Your task to perform on an android device: turn off location history Image 0: 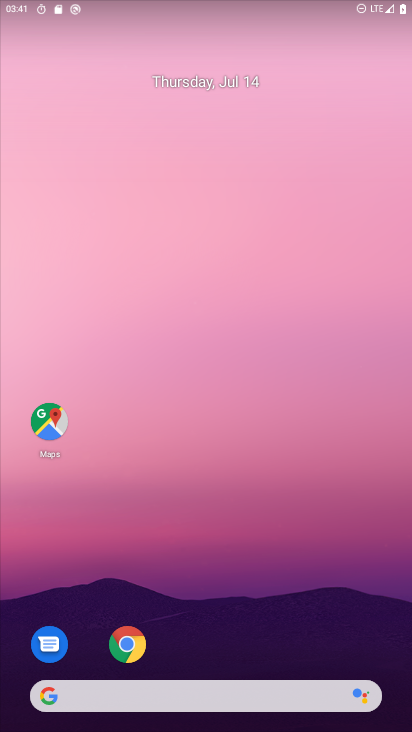
Step 0: drag from (254, 619) to (0, 75)
Your task to perform on an android device: turn off location history Image 1: 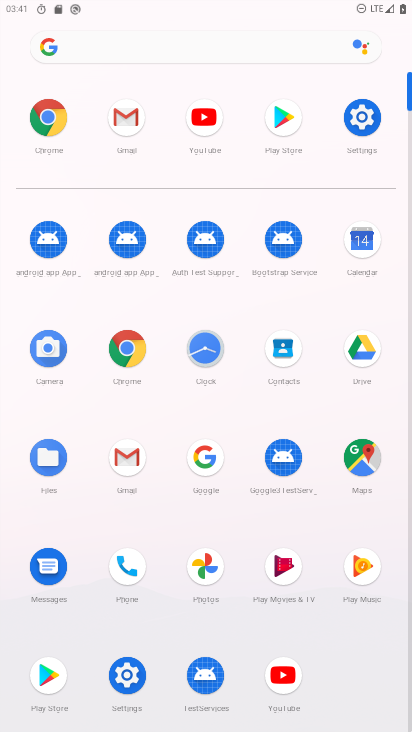
Step 1: click (356, 114)
Your task to perform on an android device: turn off location history Image 2: 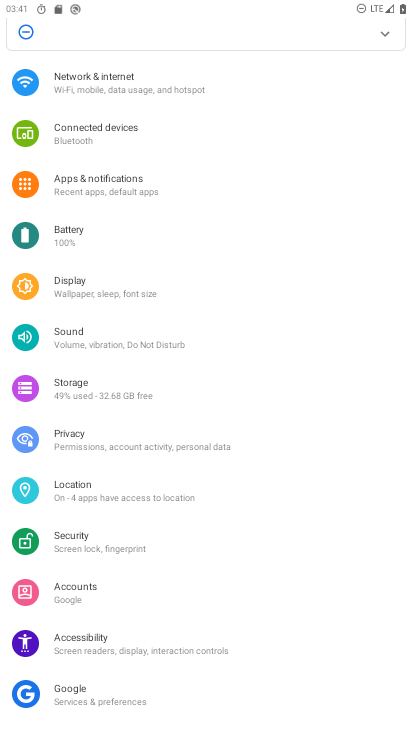
Step 2: click (112, 498)
Your task to perform on an android device: turn off location history Image 3: 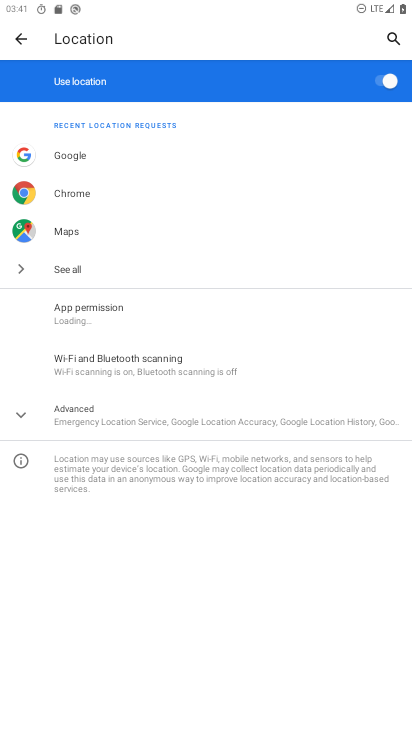
Step 3: click (123, 414)
Your task to perform on an android device: turn off location history Image 4: 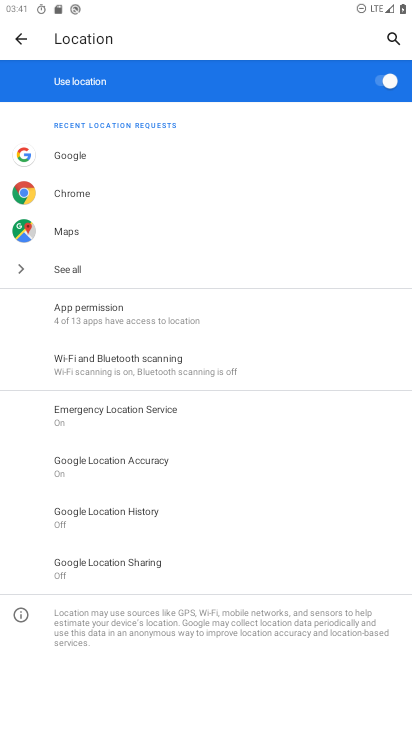
Step 4: click (120, 515)
Your task to perform on an android device: turn off location history Image 5: 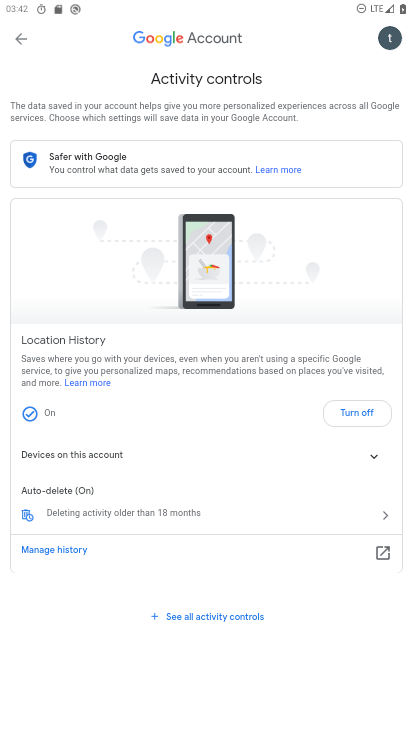
Step 5: click (375, 416)
Your task to perform on an android device: turn off location history Image 6: 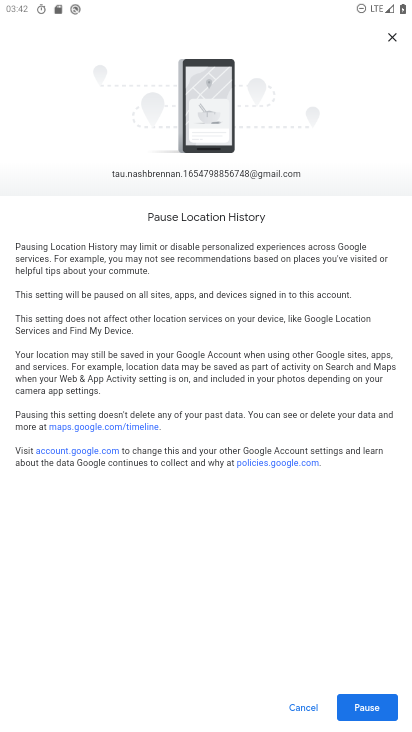
Step 6: click (374, 712)
Your task to perform on an android device: turn off location history Image 7: 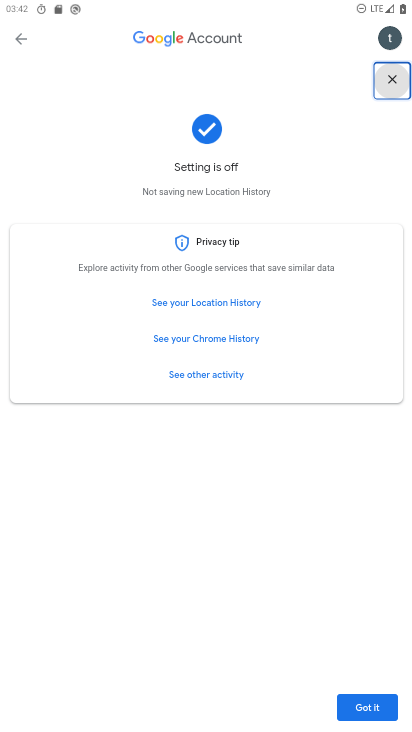
Step 7: task complete